Your task to perform on an android device: manage bookmarks in the chrome app Image 0: 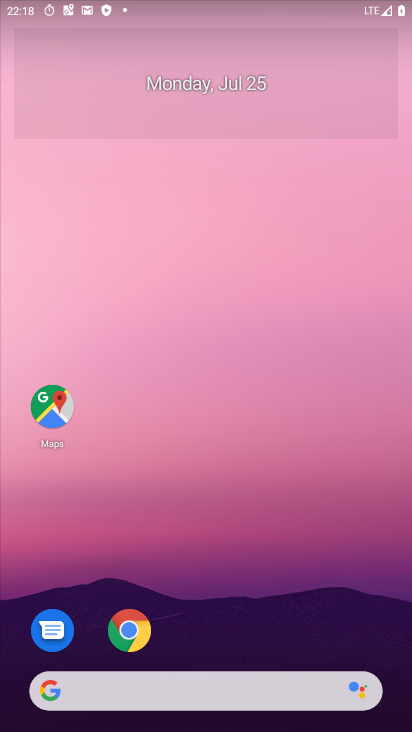
Step 0: press home button
Your task to perform on an android device: manage bookmarks in the chrome app Image 1: 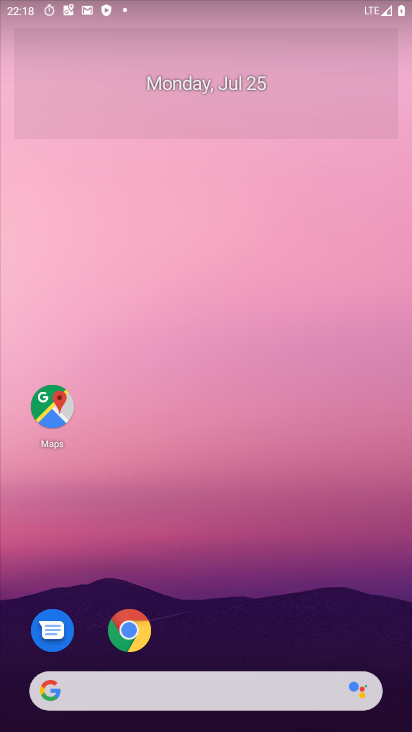
Step 1: click (298, 638)
Your task to perform on an android device: manage bookmarks in the chrome app Image 2: 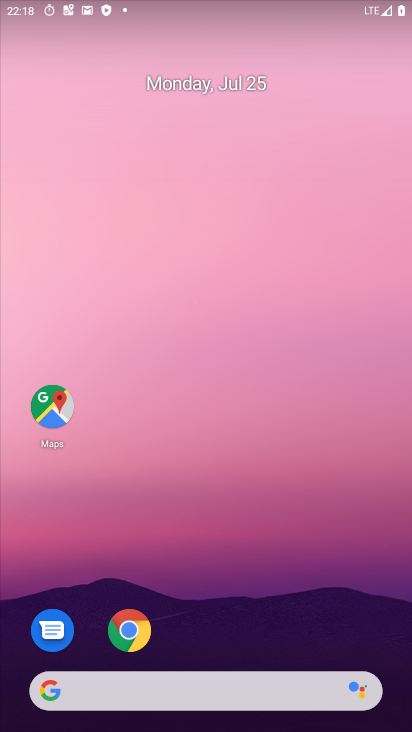
Step 2: click (133, 637)
Your task to perform on an android device: manage bookmarks in the chrome app Image 3: 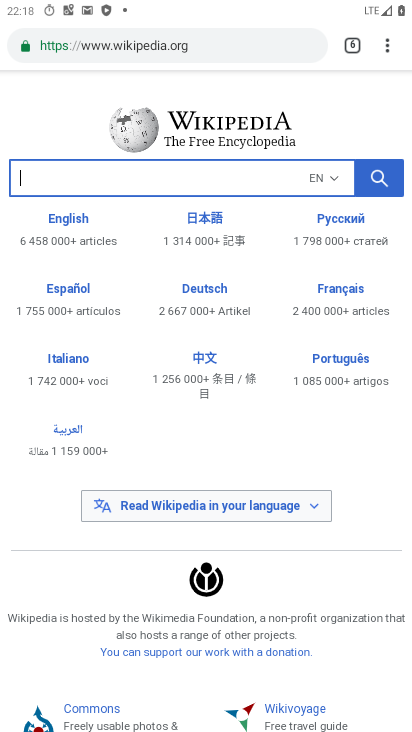
Step 3: task complete